Your task to perform on an android device: Open maps Image 0: 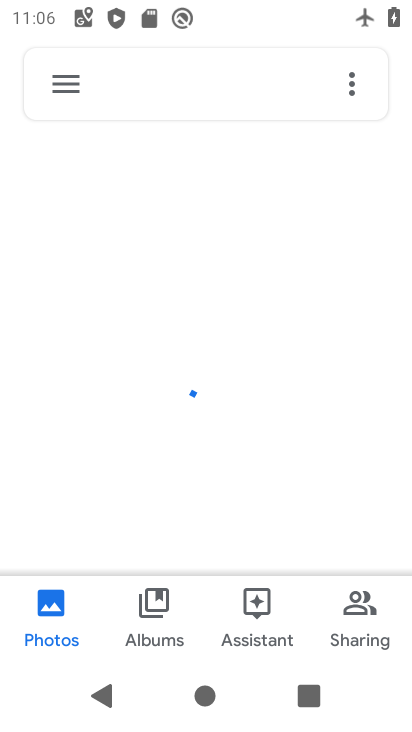
Step 0: press home button
Your task to perform on an android device: Open maps Image 1: 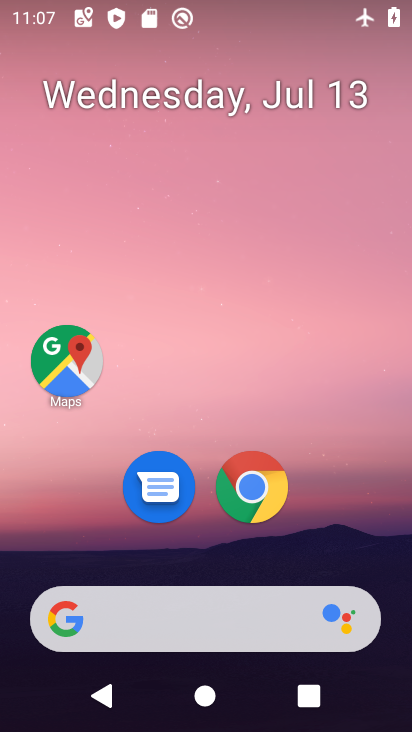
Step 1: click (76, 364)
Your task to perform on an android device: Open maps Image 2: 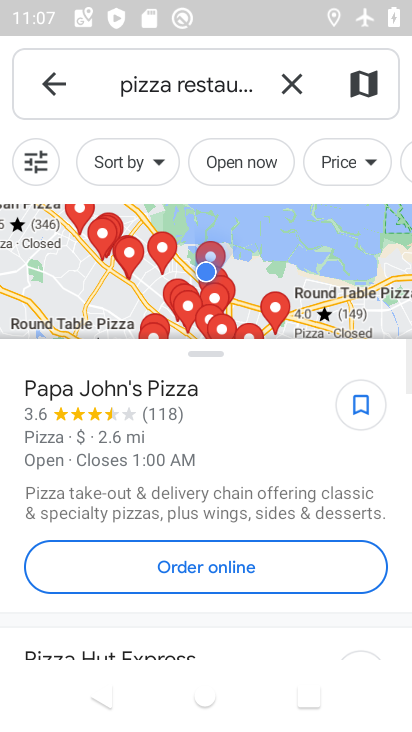
Step 2: click (61, 71)
Your task to perform on an android device: Open maps Image 3: 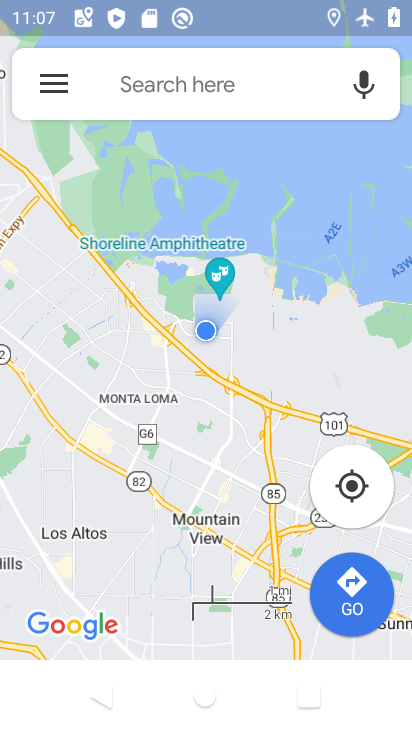
Step 3: task complete